Your task to perform on an android device: Open calendar and show me the third week of next month Image 0: 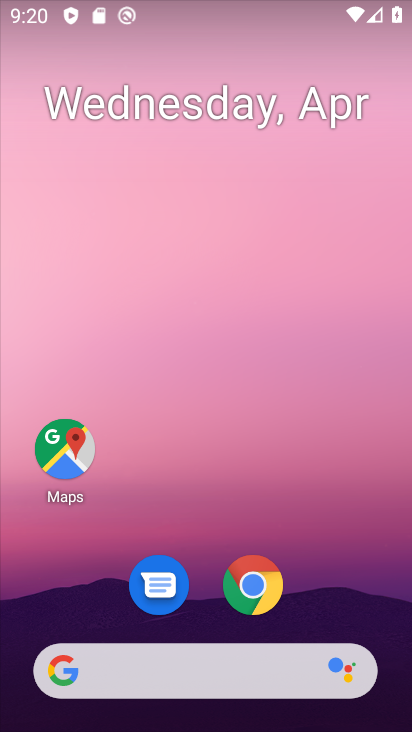
Step 0: drag from (349, 381) to (354, 88)
Your task to perform on an android device: Open calendar and show me the third week of next month Image 1: 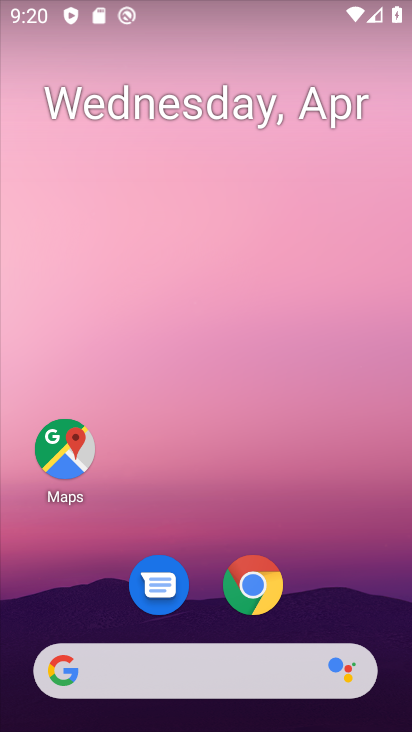
Step 1: drag from (342, 574) to (384, 96)
Your task to perform on an android device: Open calendar and show me the third week of next month Image 2: 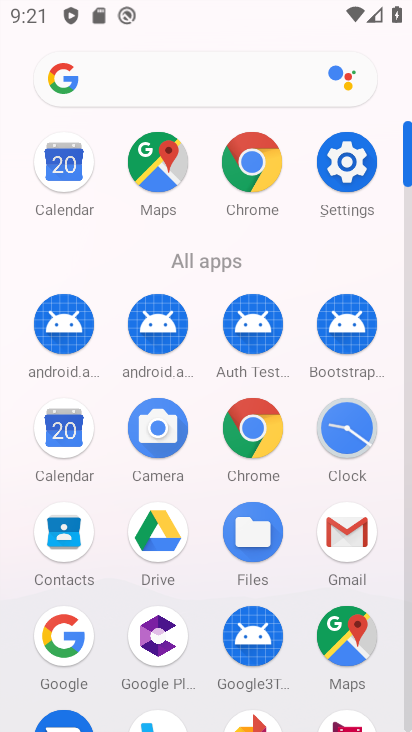
Step 2: click (76, 428)
Your task to perform on an android device: Open calendar and show me the third week of next month Image 3: 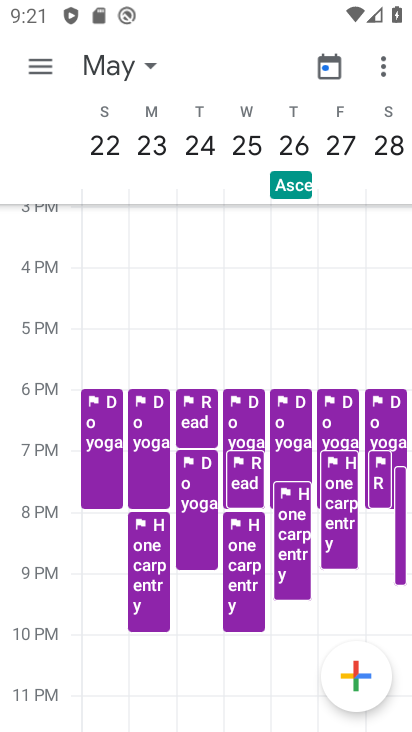
Step 3: task complete